Your task to perform on an android device: toggle sleep mode Image 0: 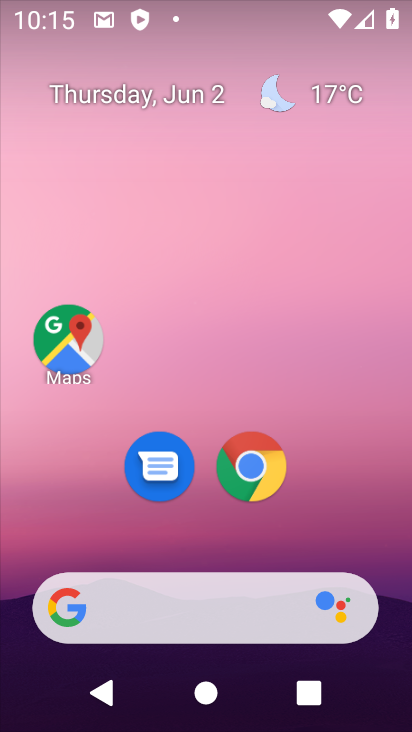
Step 0: drag from (304, 542) to (307, 104)
Your task to perform on an android device: toggle sleep mode Image 1: 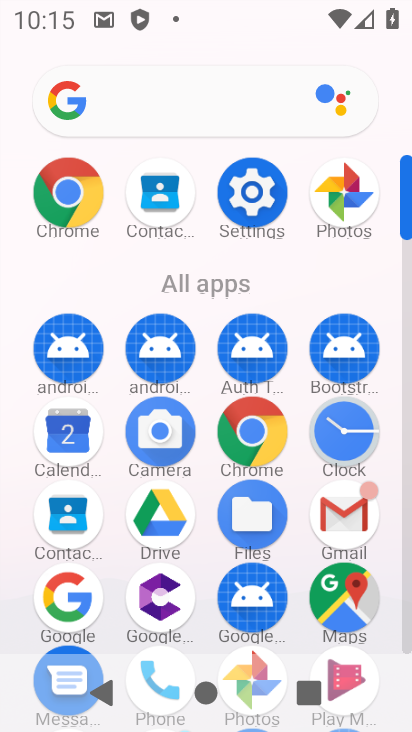
Step 1: click (254, 205)
Your task to perform on an android device: toggle sleep mode Image 2: 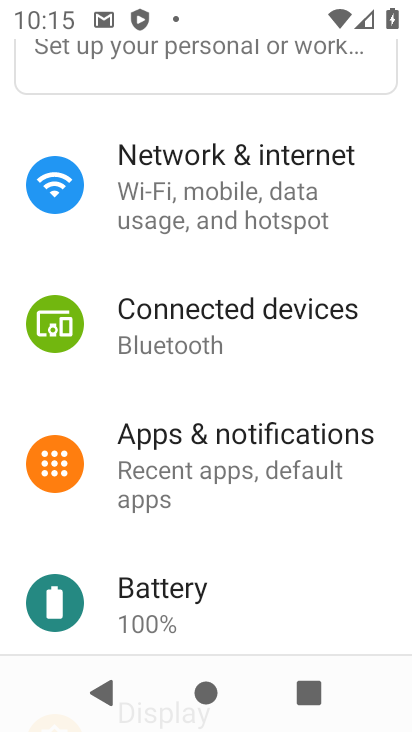
Step 2: drag from (265, 619) to (257, 258)
Your task to perform on an android device: toggle sleep mode Image 3: 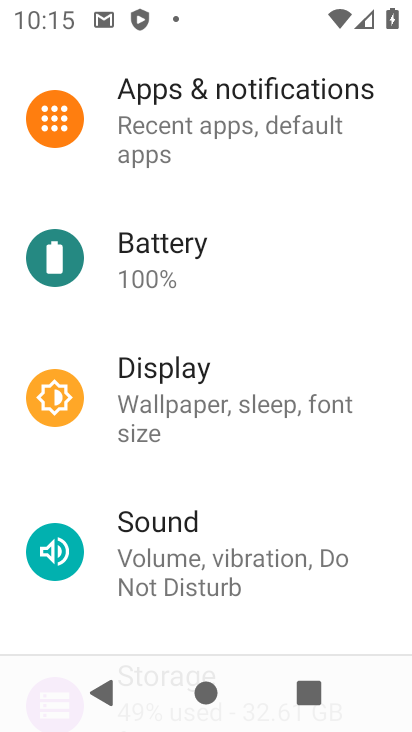
Step 3: click (159, 388)
Your task to perform on an android device: toggle sleep mode Image 4: 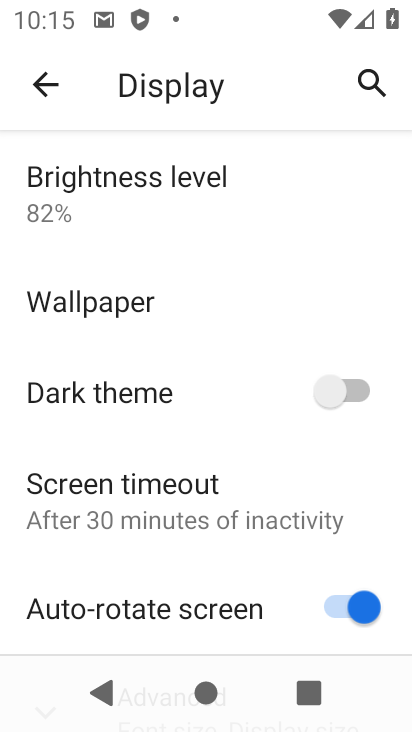
Step 4: task complete